Your task to perform on an android device: open wifi settings Image 0: 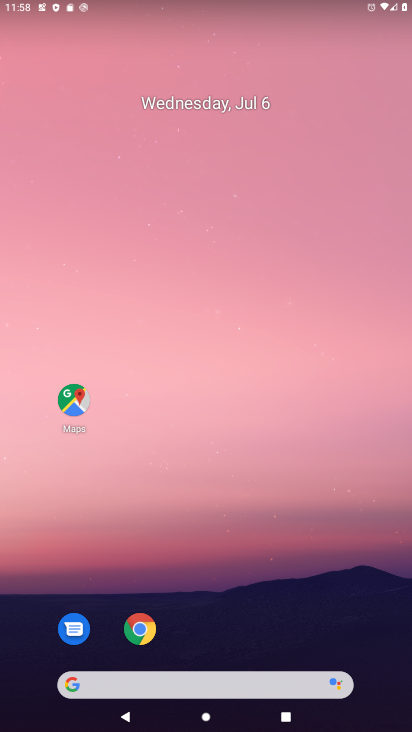
Step 0: drag from (202, 548) to (202, 102)
Your task to perform on an android device: open wifi settings Image 1: 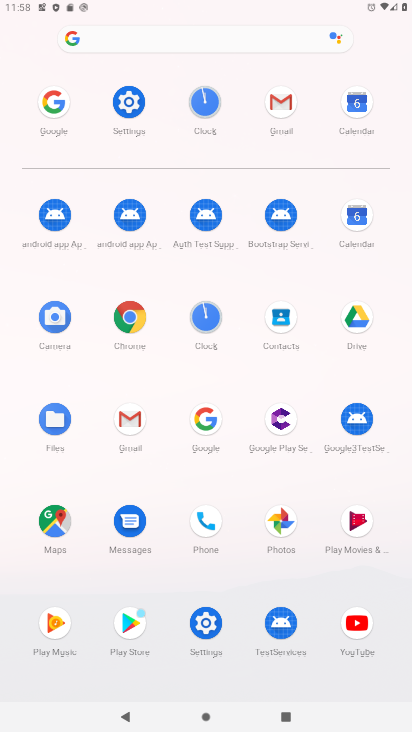
Step 1: click (122, 103)
Your task to perform on an android device: open wifi settings Image 2: 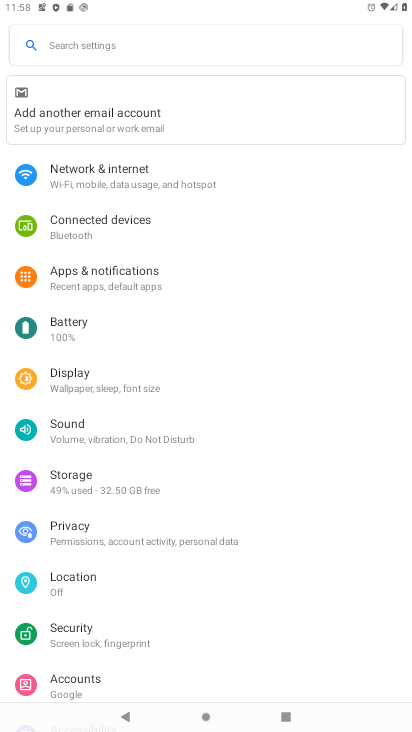
Step 2: click (145, 161)
Your task to perform on an android device: open wifi settings Image 3: 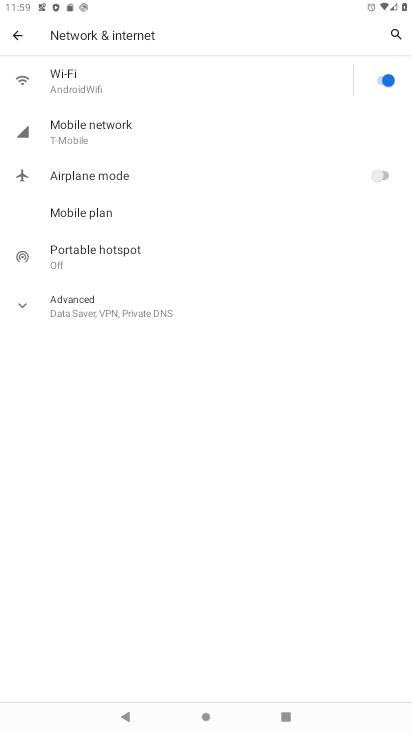
Step 3: click (68, 80)
Your task to perform on an android device: open wifi settings Image 4: 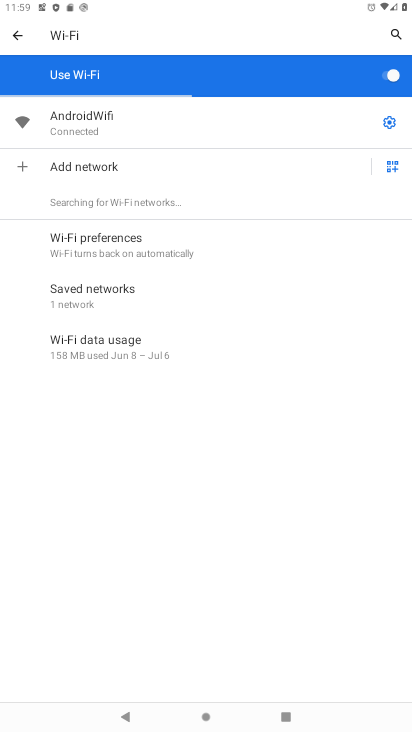
Step 4: task complete